Your task to perform on an android device: Open Android settings Image 0: 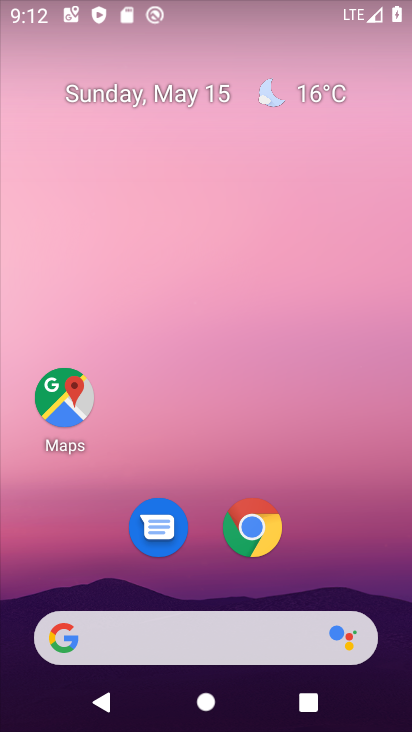
Step 0: drag from (384, 619) to (311, 13)
Your task to perform on an android device: Open Android settings Image 1: 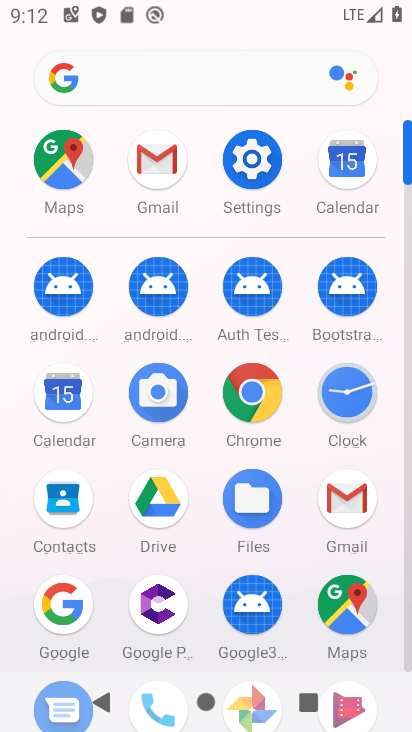
Step 1: click (254, 166)
Your task to perform on an android device: Open Android settings Image 2: 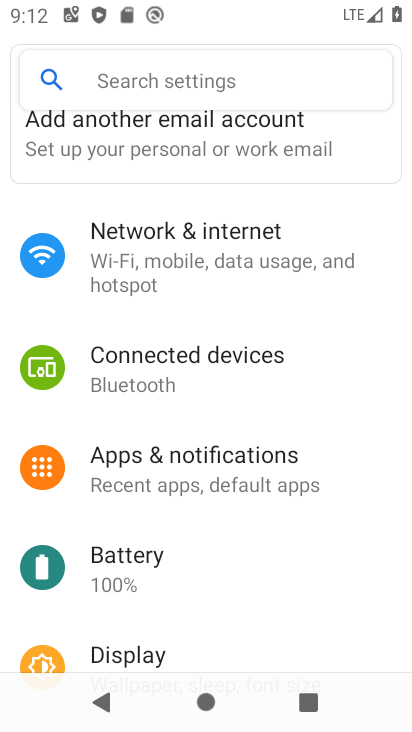
Step 2: drag from (258, 625) to (235, 1)
Your task to perform on an android device: Open Android settings Image 3: 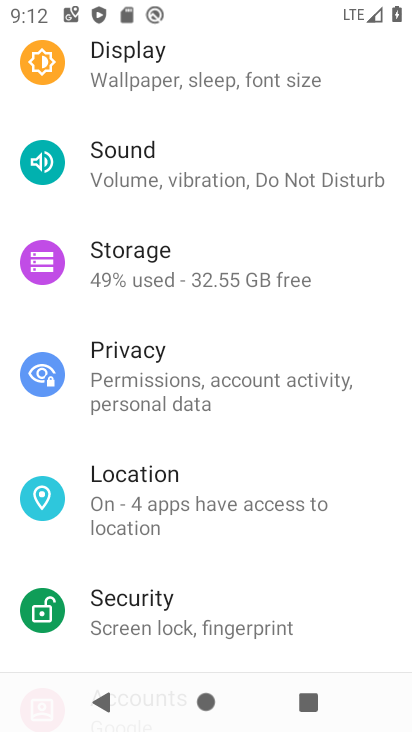
Step 3: drag from (248, 580) to (253, 46)
Your task to perform on an android device: Open Android settings Image 4: 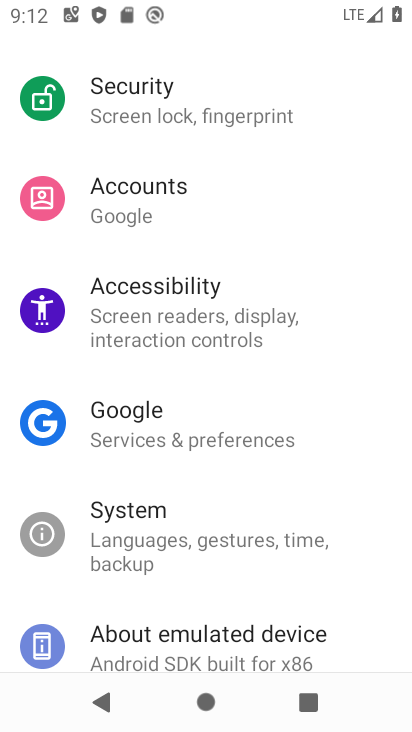
Step 4: drag from (183, 597) to (221, 233)
Your task to perform on an android device: Open Android settings Image 5: 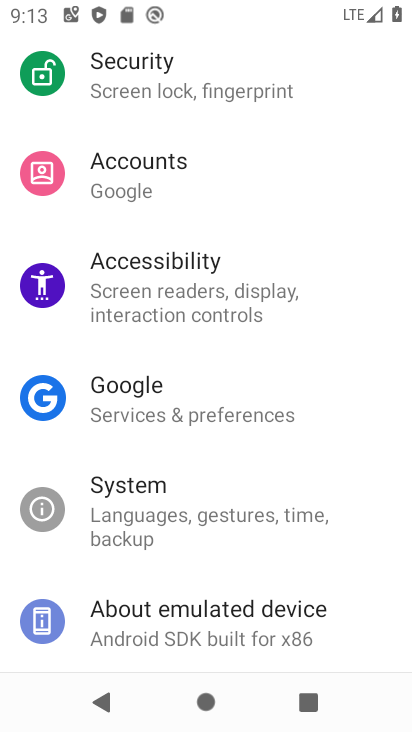
Step 5: click (173, 615)
Your task to perform on an android device: Open Android settings Image 6: 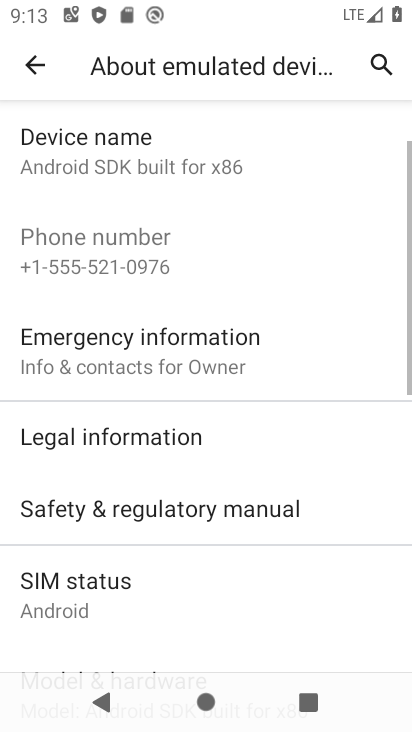
Step 6: task complete